Your task to perform on an android device: uninstall "Microsoft Authenticator" Image 0: 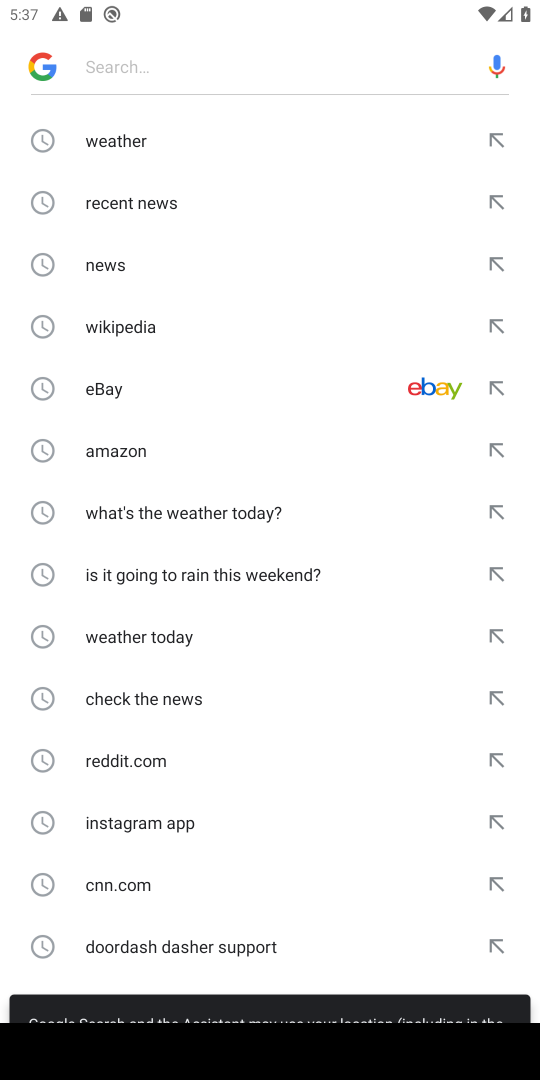
Step 0: press back button
Your task to perform on an android device: uninstall "Microsoft Authenticator" Image 1: 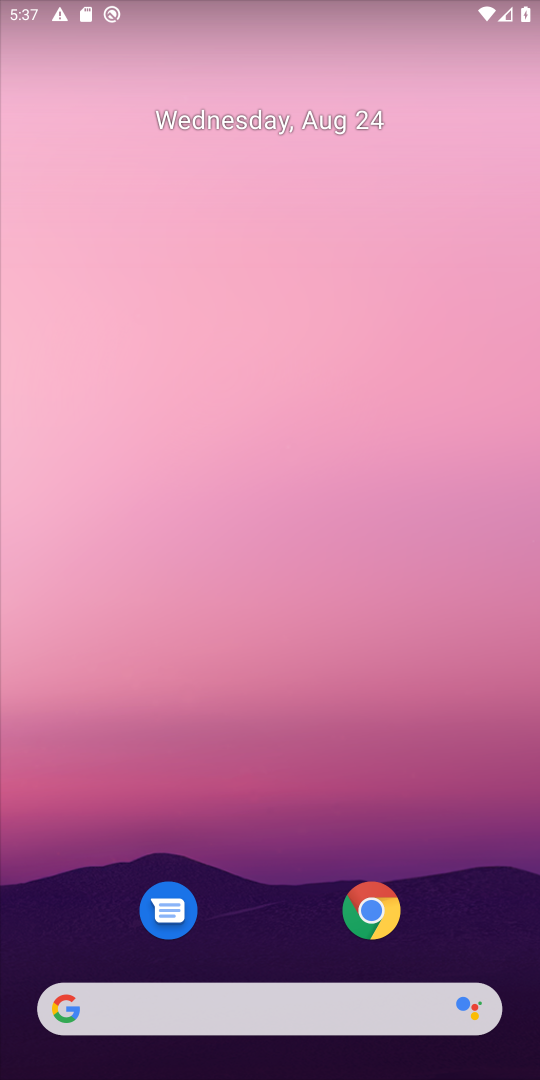
Step 1: drag from (264, 992) to (259, 0)
Your task to perform on an android device: uninstall "Microsoft Authenticator" Image 2: 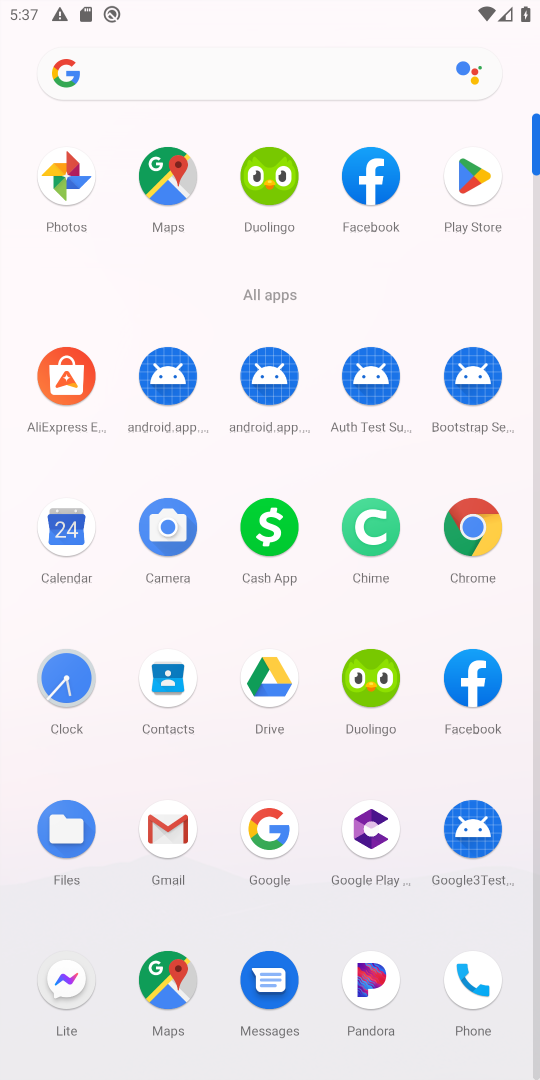
Step 2: click (472, 177)
Your task to perform on an android device: uninstall "Microsoft Authenticator" Image 3: 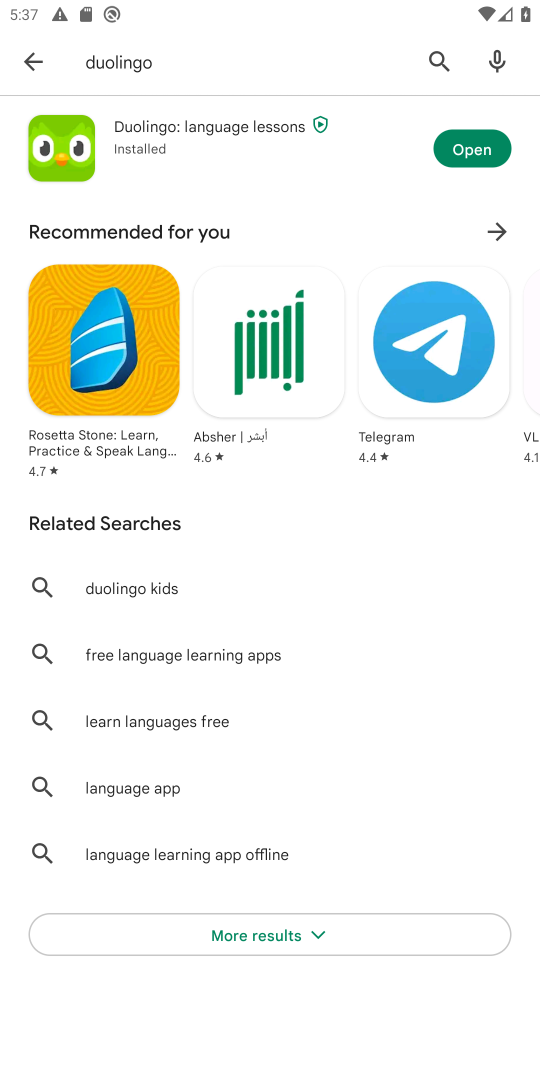
Step 3: click (432, 52)
Your task to perform on an android device: uninstall "Microsoft Authenticator" Image 4: 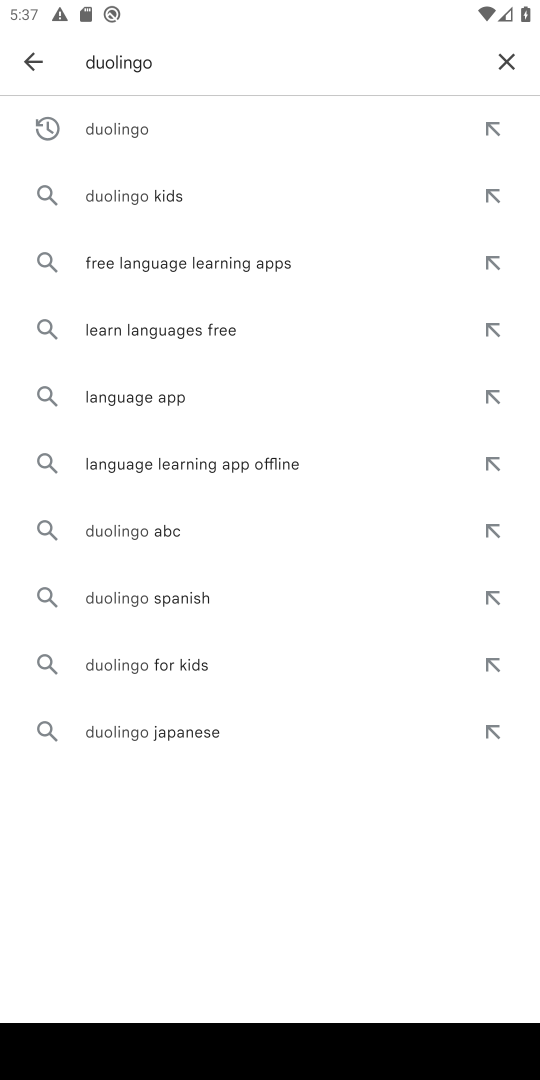
Step 4: click (502, 61)
Your task to perform on an android device: uninstall "Microsoft Authenticator" Image 5: 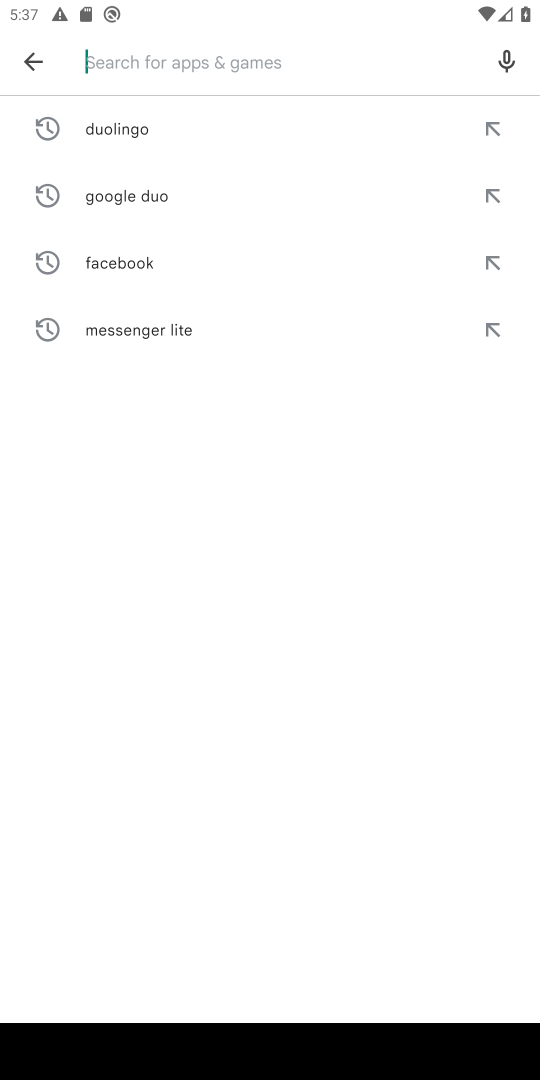
Step 5: type "microsoft authenticatie"
Your task to perform on an android device: uninstall "Microsoft Authenticator" Image 6: 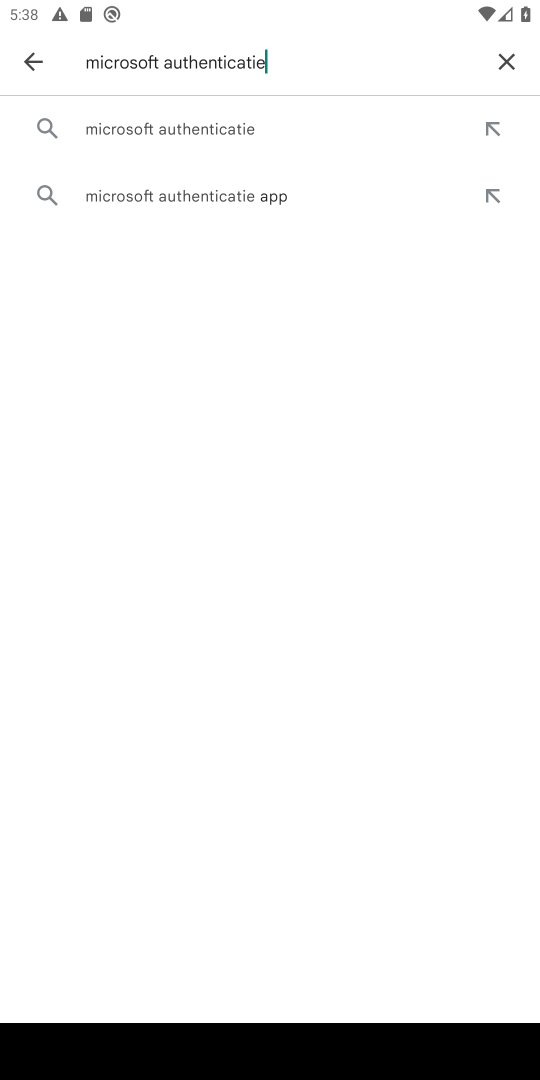
Step 6: click (230, 196)
Your task to perform on an android device: uninstall "Microsoft Authenticator" Image 7: 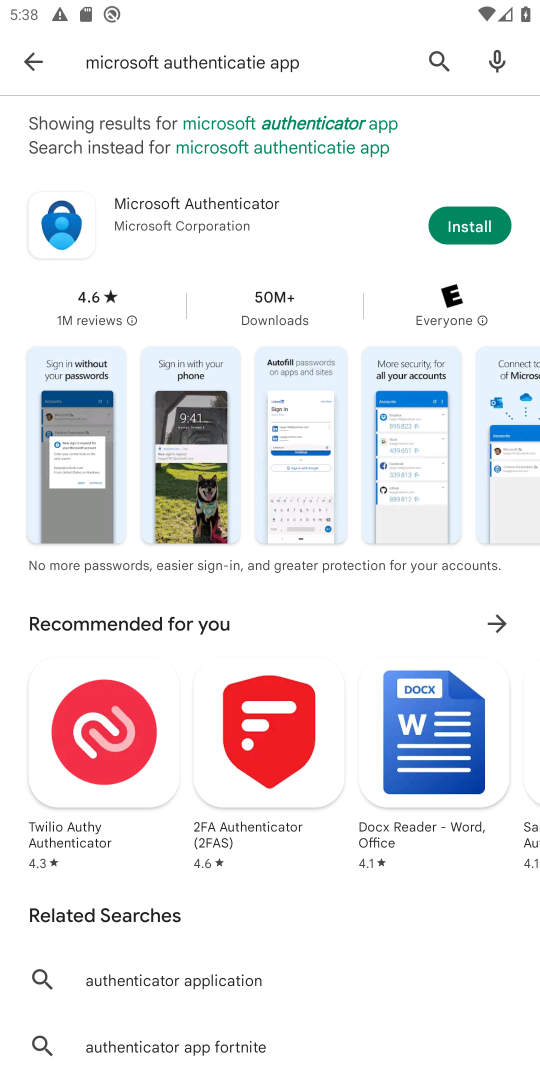
Step 7: task complete